Your task to perform on an android device: uninstall "Google Drive" Image 0: 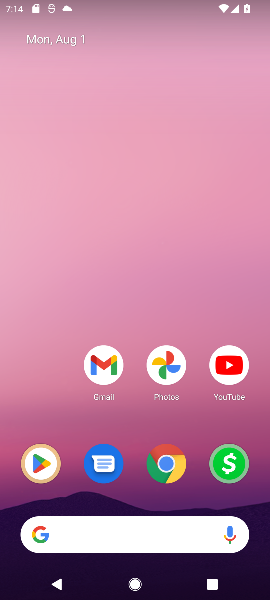
Step 0: click (46, 476)
Your task to perform on an android device: uninstall "Google Drive" Image 1: 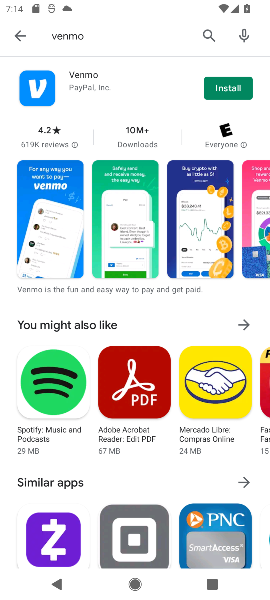
Step 1: click (42, 472)
Your task to perform on an android device: uninstall "Google Drive" Image 2: 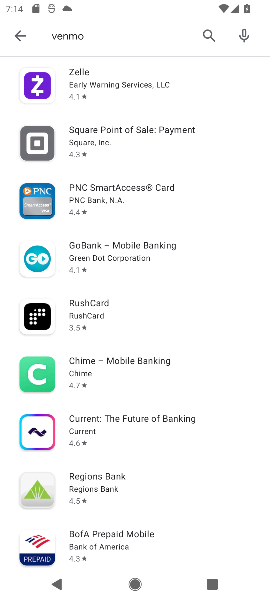
Step 2: click (205, 44)
Your task to perform on an android device: uninstall "Google Drive" Image 3: 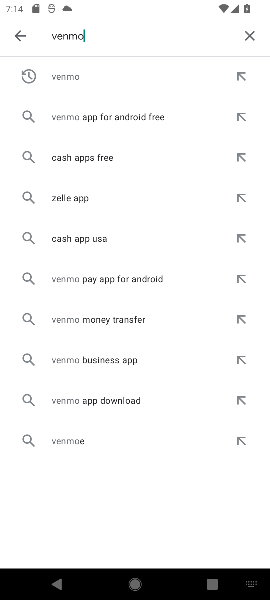
Step 3: click (209, 16)
Your task to perform on an android device: uninstall "Google Drive" Image 4: 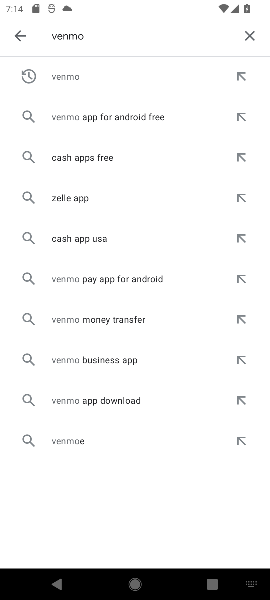
Step 4: click (201, 35)
Your task to perform on an android device: uninstall "Google Drive" Image 5: 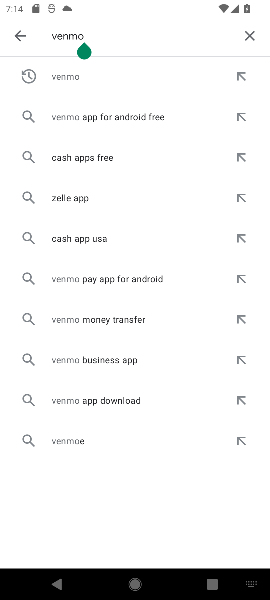
Step 5: click (247, 43)
Your task to perform on an android device: uninstall "Google Drive" Image 6: 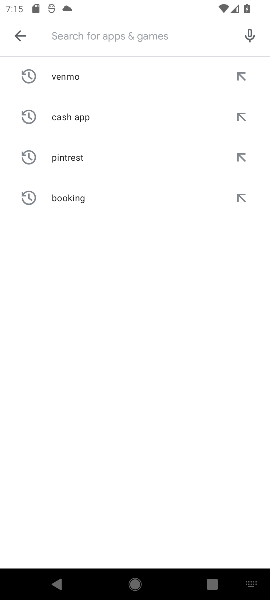
Step 6: type "google drive"
Your task to perform on an android device: uninstall "Google Drive" Image 7: 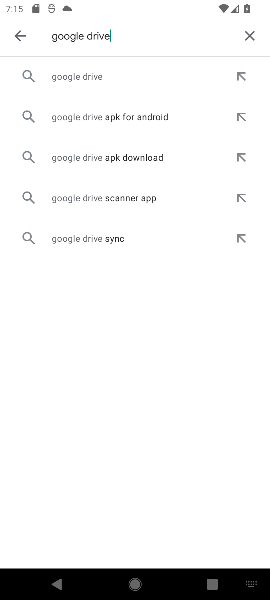
Step 7: click (144, 89)
Your task to perform on an android device: uninstall "Google Drive" Image 8: 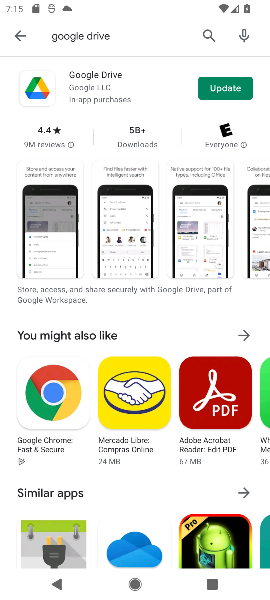
Step 8: click (218, 95)
Your task to perform on an android device: uninstall "Google Drive" Image 9: 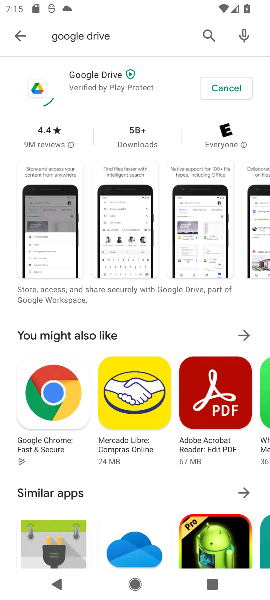
Step 9: task complete